Your task to perform on an android device: Open internet settings Image 0: 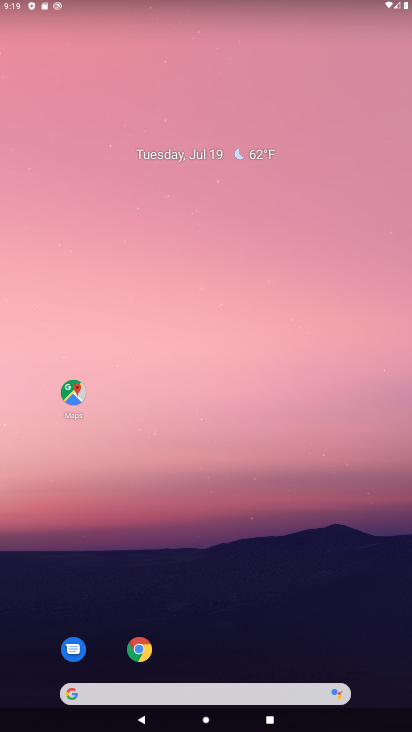
Step 0: drag from (266, 688) to (335, 68)
Your task to perform on an android device: Open internet settings Image 1: 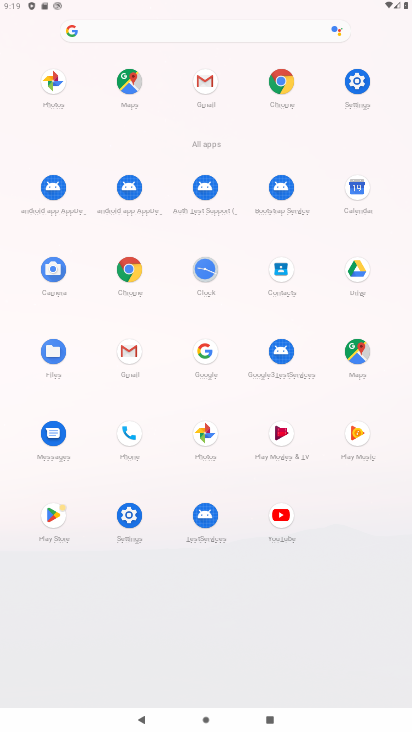
Step 1: click (359, 74)
Your task to perform on an android device: Open internet settings Image 2: 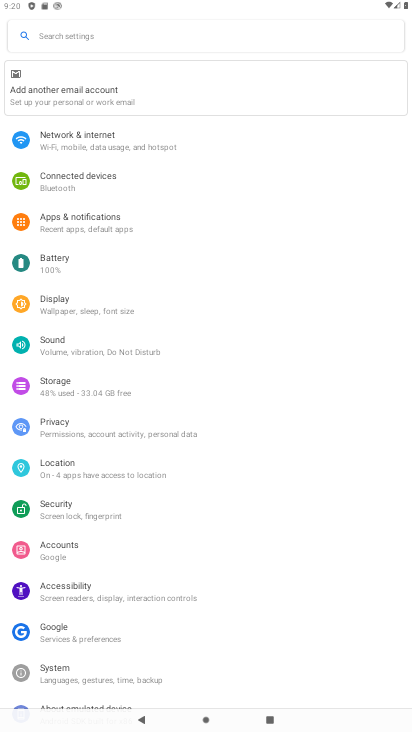
Step 2: click (106, 143)
Your task to perform on an android device: Open internet settings Image 3: 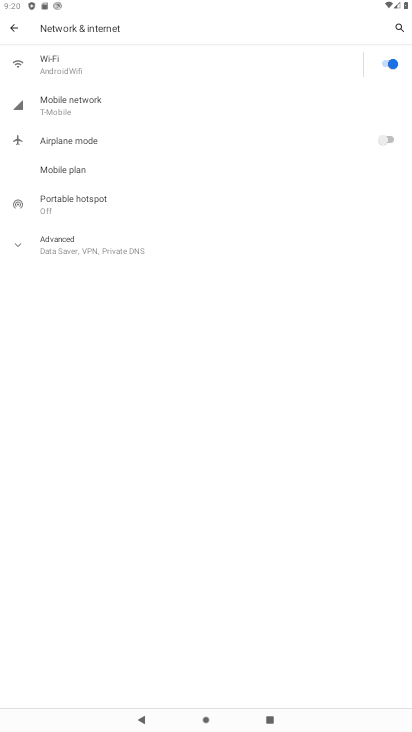
Step 3: task complete